Your task to perform on an android device: Go to eBay Image 0: 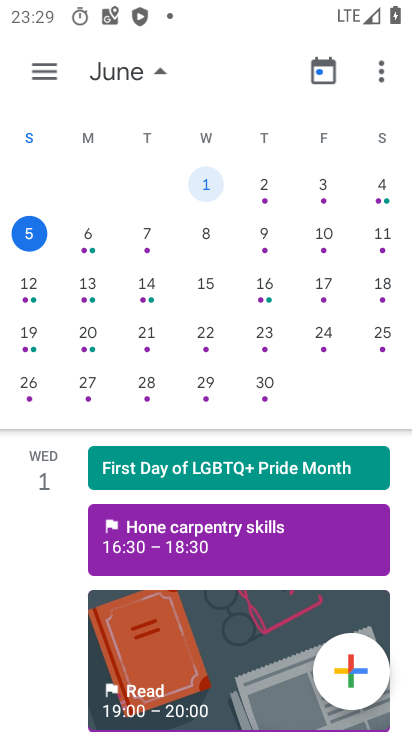
Step 0: press home button
Your task to perform on an android device: Go to eBay Image 1: 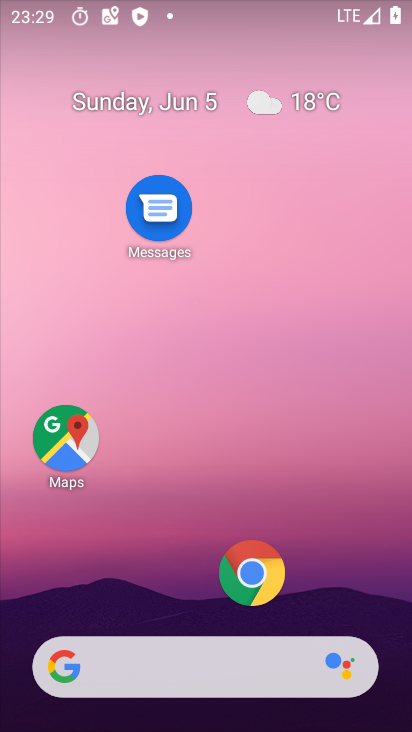
Step 1: click (248, 568)
Your task to perform on an android device: Go to eBay Image 2: 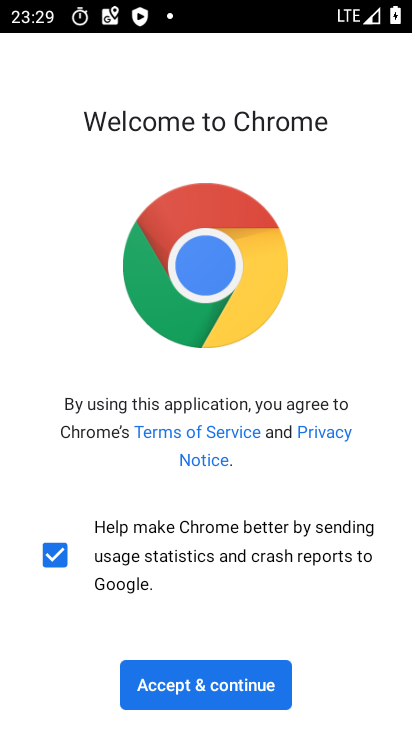
Step 2: click (238, 682)
Your task to perform on an android device: Go to eBay Image 3: 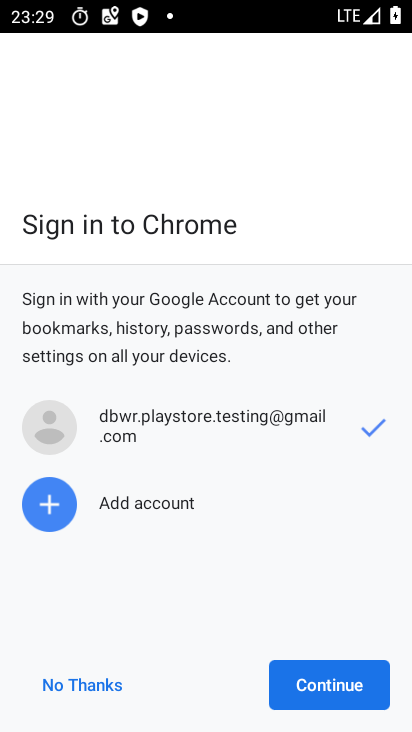
Step 3: click (298, 680)
Your task to perform on an android device: Go to eBay Image 4: 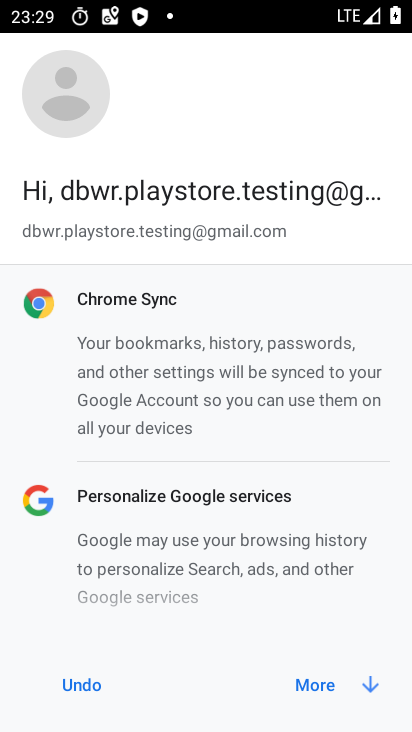
Step 4: click (298, 680)
Your task to perform on an android device: Go to eBay Image 5: 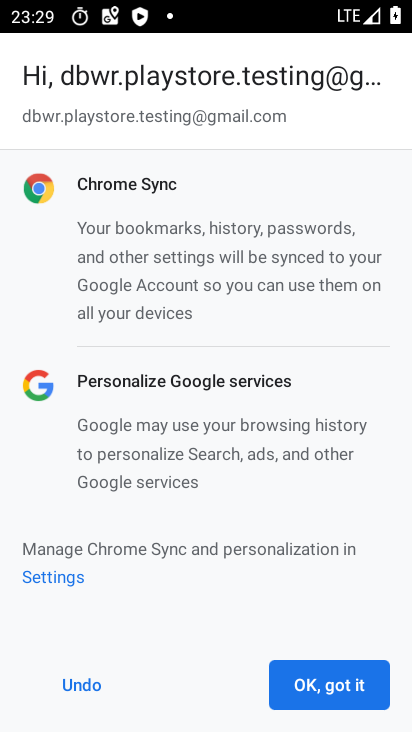
Step 5: click (298, 680)
Your task to perform on an android device: Go to eBay Image 6: 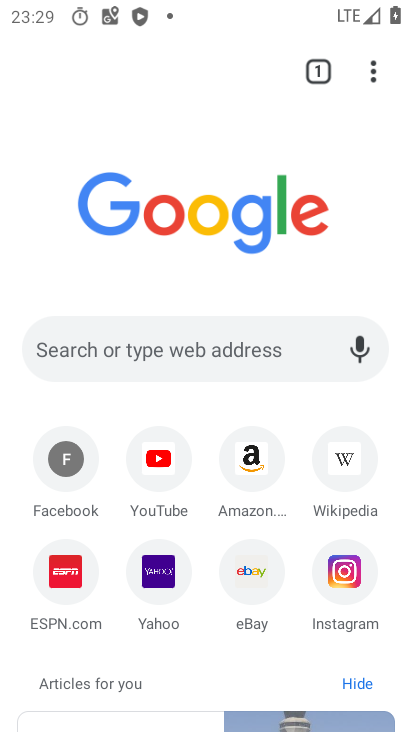
Step 6: click (242, 574)
Your task to perform on an android device: Go to eBay Image 7: 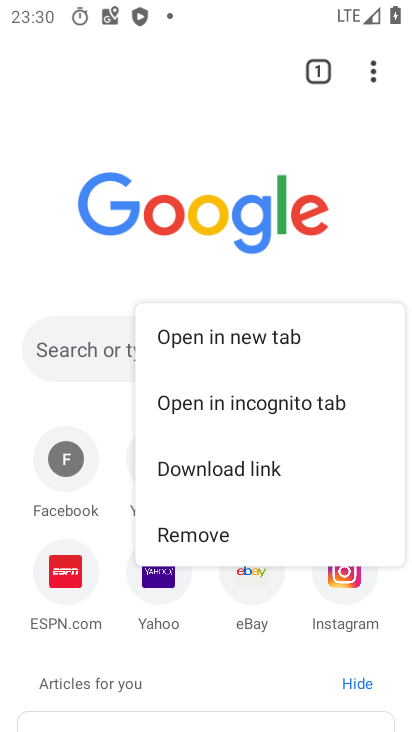
Step 7: click (242, 574)
Your task to perform on an android device: Go to eBay Image 8: 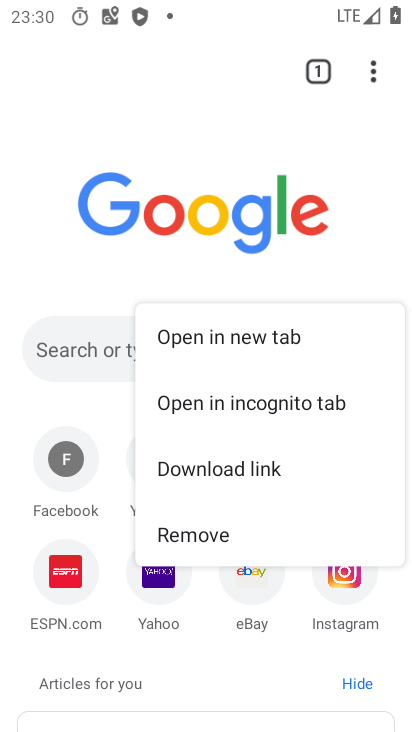
Step 8: click (242, 574)
Your task to perform on an android device: Go to eBay Image 9: 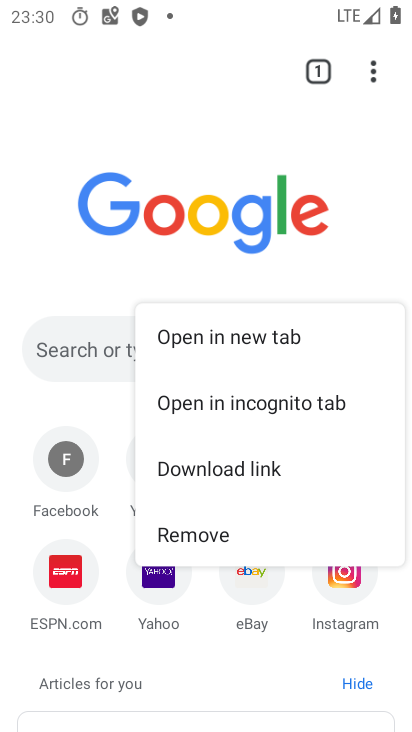
Step 9: click (246, 587)
Your task to perform on an android device: Go to eBay Image 10: 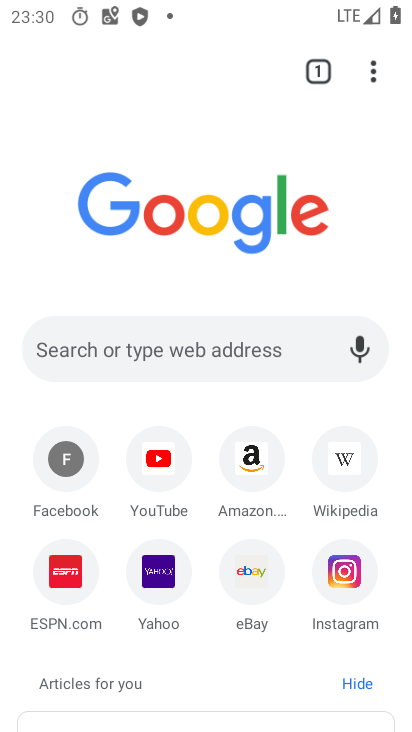
Step 10: click (246, 587)
Your task to perform on an android device: Go to eBay Image 11: 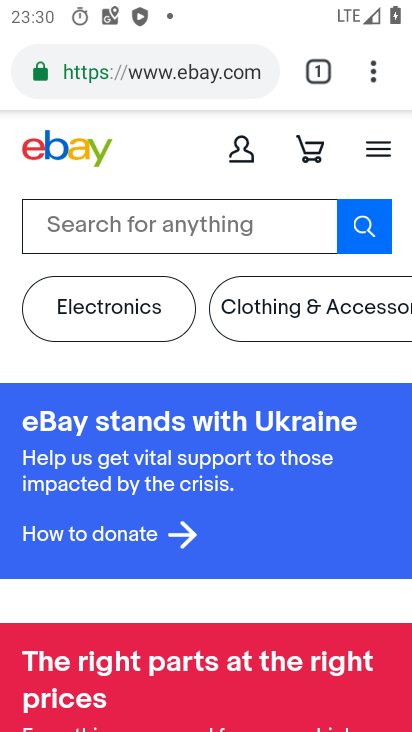
Step 11: task complete